Your task to perform on an android device: Go to Google Image 0: 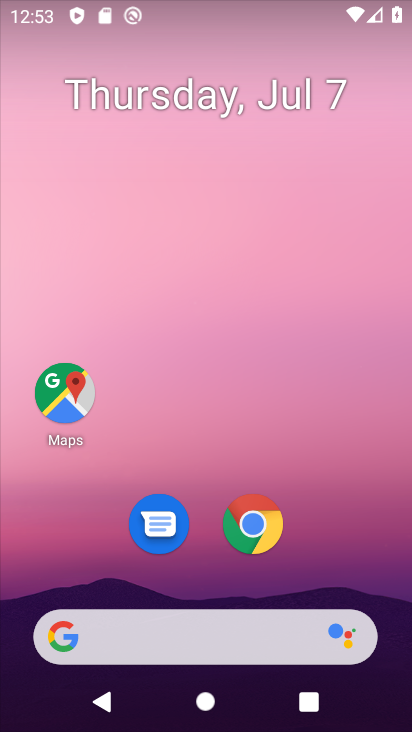
Step 0: drag from (244, 444) to (270, 25)
Your task to perform on an android device: Go to Google Image 1: 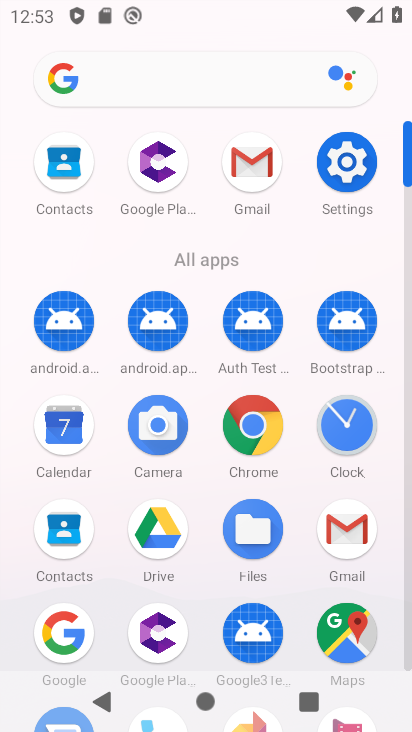
Step 1: click (73, 628)
Your task to perform on an android device: Go to Google Image 2: 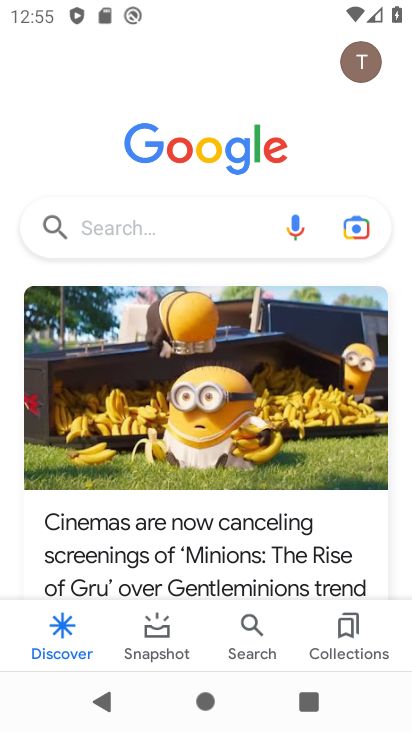
Step 2: task complete